Your task to perform on an android device: What's the weather? Image 0: 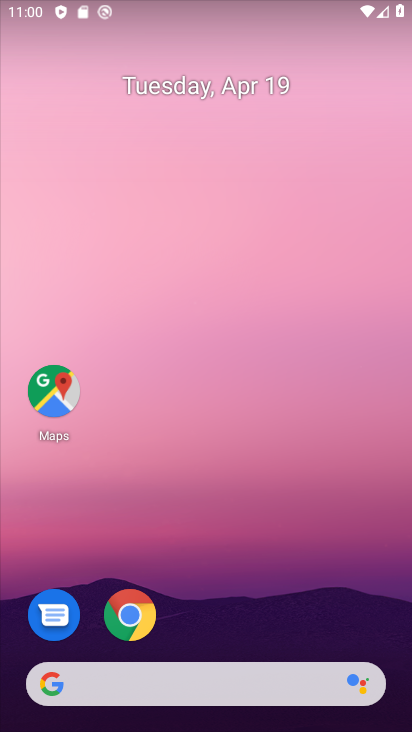
Step 0: drag from (204, 594) to (220, 166)
Your task to perform on an android device: What's the weather? Image 1: 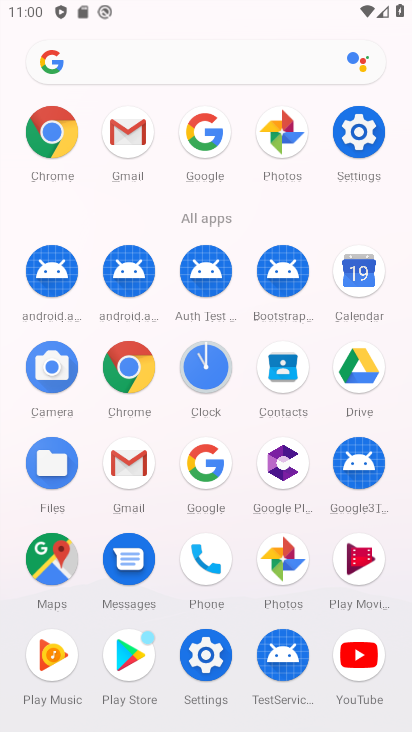
Step 1: click (199, 464)
Your task to perform on an android device: What's the weather? Image 2: 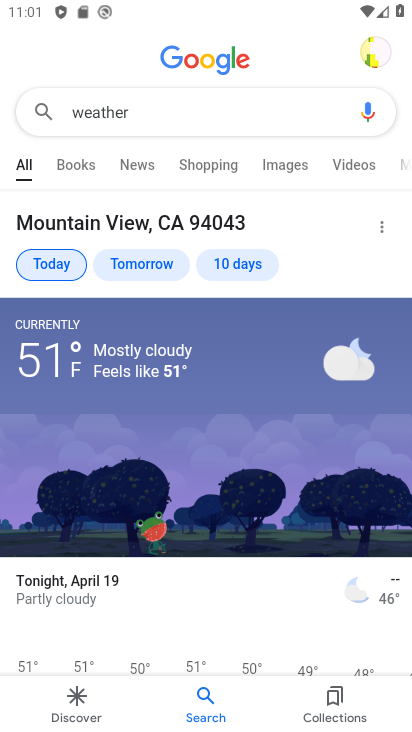
Step 2: task complete